Your task to perform on an android device: turn off notifications in google photos Image 0: 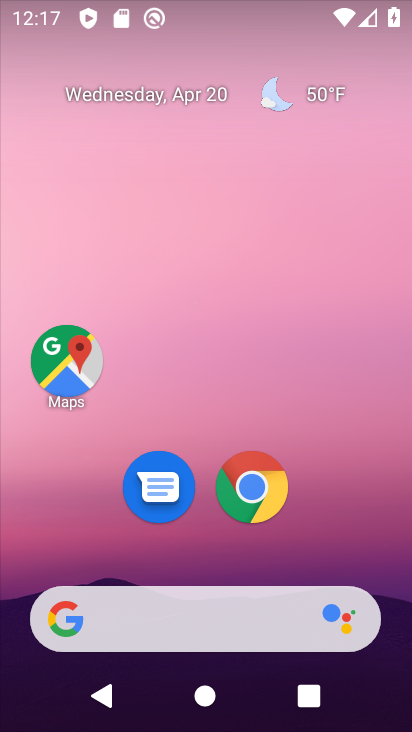
Step 0: drag from (382, 484) to (306, 216)
Your task to perform on an android device: turn off notifications in google photos Image 1: 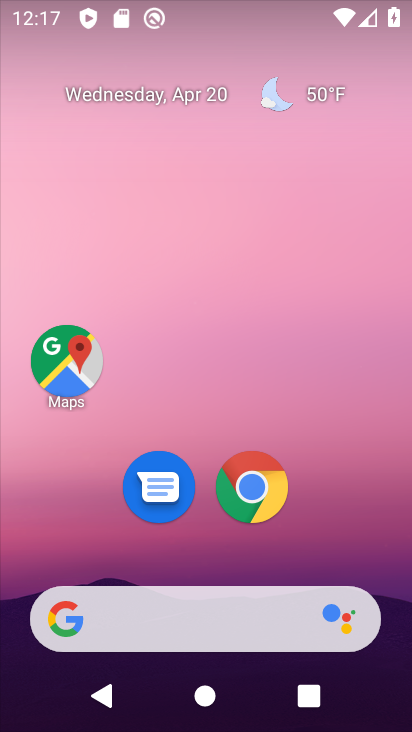
Step 1: drag from (358, 529) to (314, 151)
Your task to perform on an android device: turn off notifications in google photos Image 2: 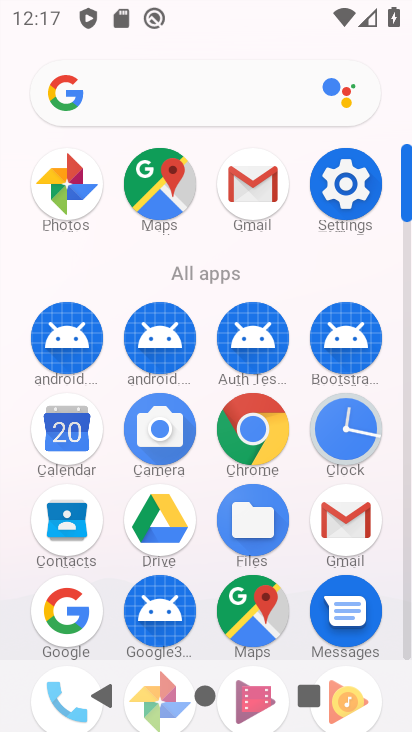
Step 2: click (82, 186)
Your task to perform on an android device: turn off notifications in google photos Image 3: 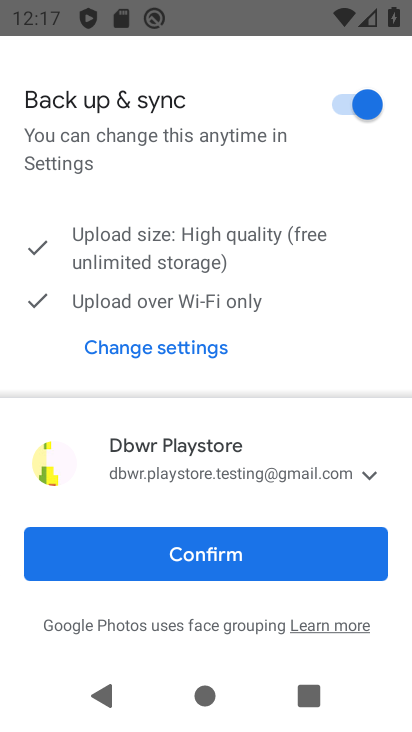
Step 3: click (207, 559)
Your task to perform on an android device: turn off notifications in google photos Image 4: 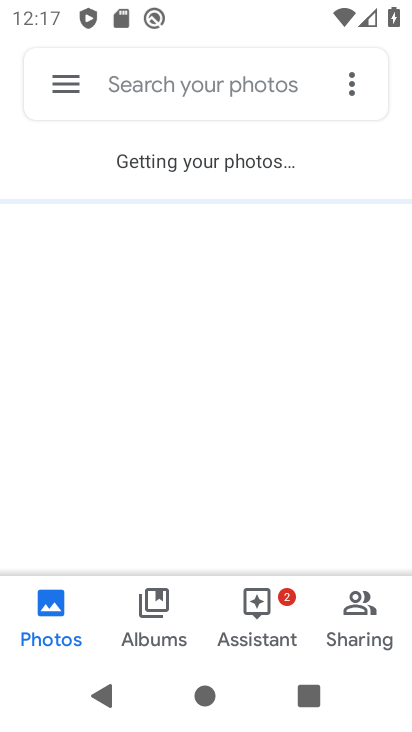
Step 4: click (65, 80)
Your task to perform on an android device: turn off notifications in google photos Image 5: 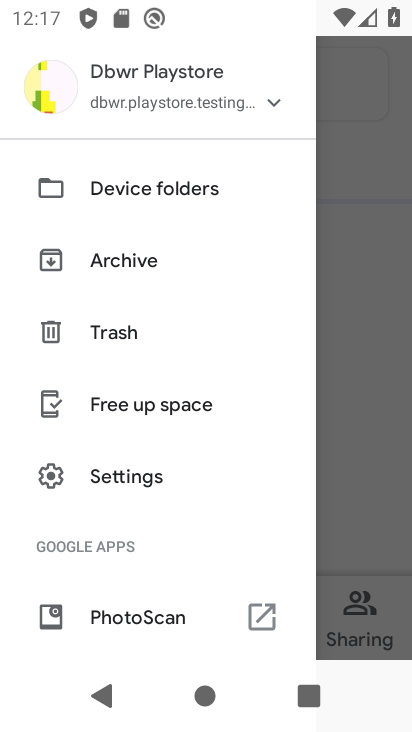
Step 5: click (234, 491)
Your task to perform on an android device: turn off notifications in google photos Image 6: 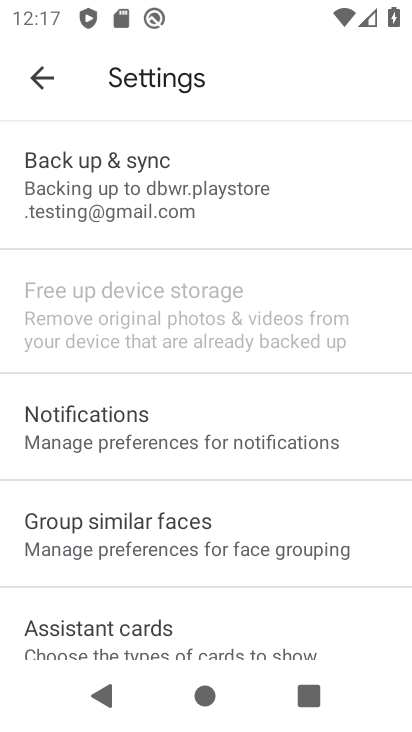
Step 6: click (242, 448)
Your task to perform on an android device: turn off notifications in google photos Image 7: 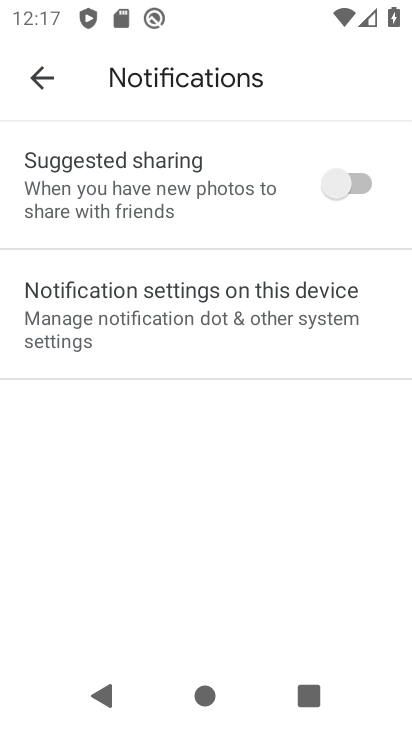
Step 7: click (249, 321)
Your task to perform on an android device: turn off notifications in google photos Image 8: 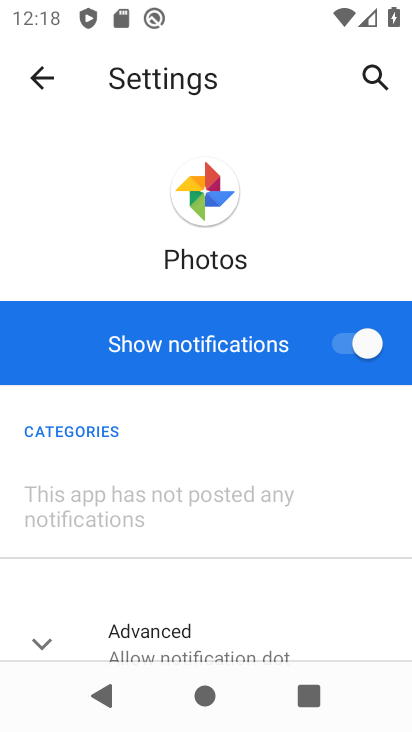
Step 8: click (356, 352)
Your task to perform on an android device: turn off notifications in google photos Image 9: 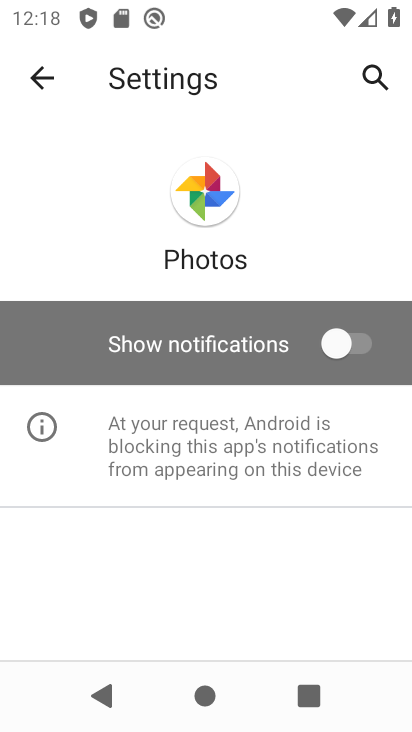
Step 9: task complete